Your task to perform on an android device: turn off location history Image 0: 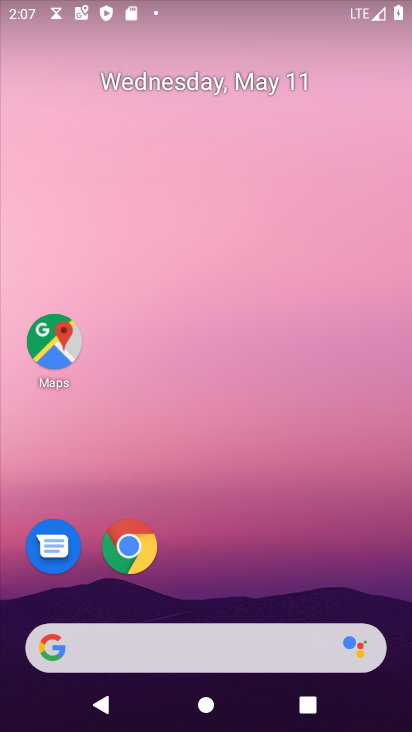
Step 0: drag from (323, 629) to (341, 15)
Your task to perform on an android device: turn off location history Image 1: 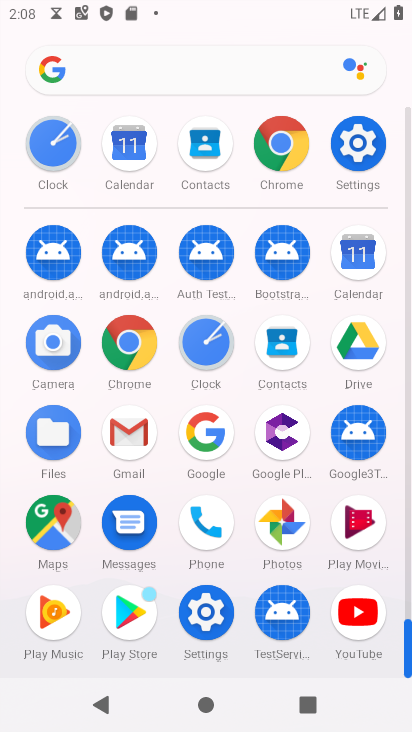
Step 1: click (348, 143)
Your task to perform on an android device: turn off location history Image 2: 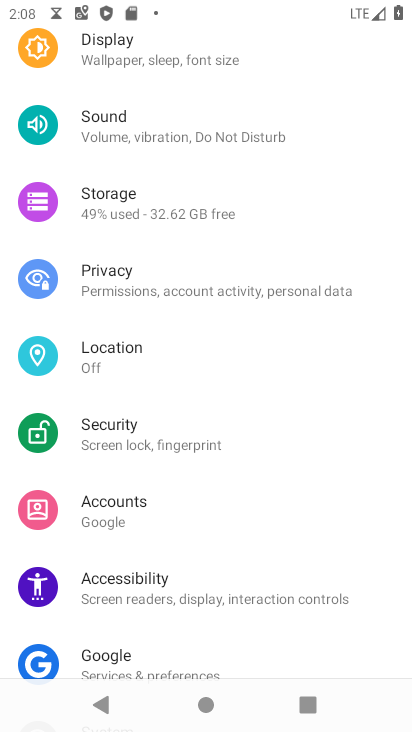
Step 2: click (289, 349)
Your task to perform on an android device: turn off location history Image 3: 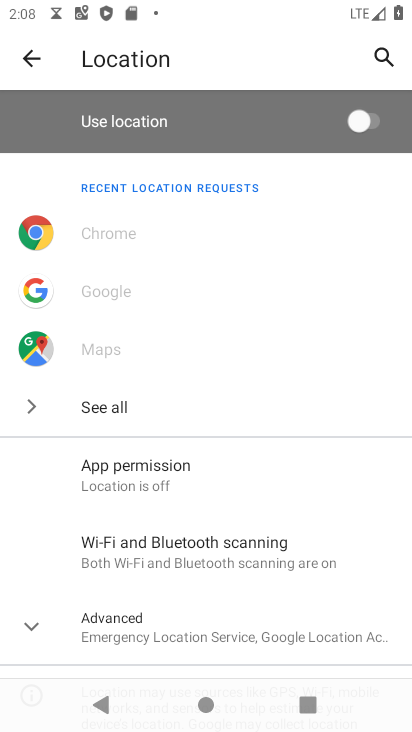
Step 3: drag from (339, 629) to (340, 259)
Your task to perform on an android device: turn off location history Image 4: 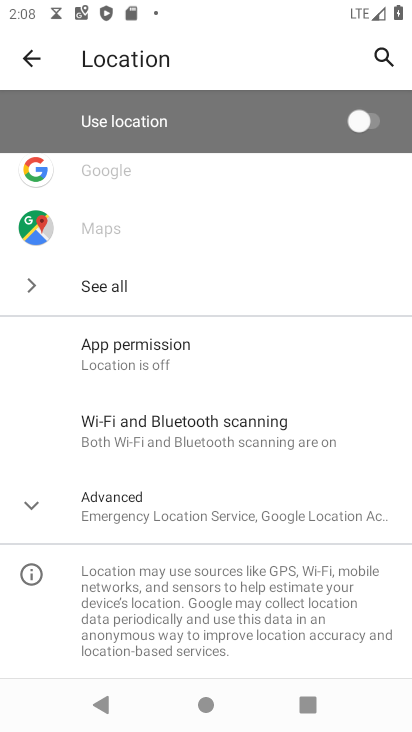
Step 4: click (271, 517)
Your task to perform on an android device: turn off location history Image 5: 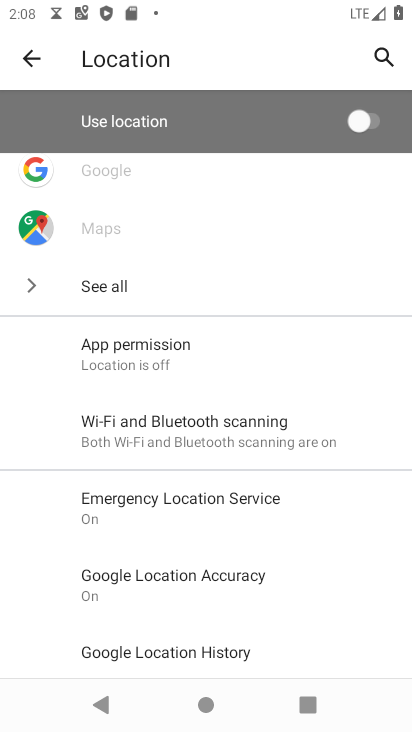
Step 5: drag from (286, 634) to (311, 308)
Your task to perform on an android device: turn off location history Image 6: 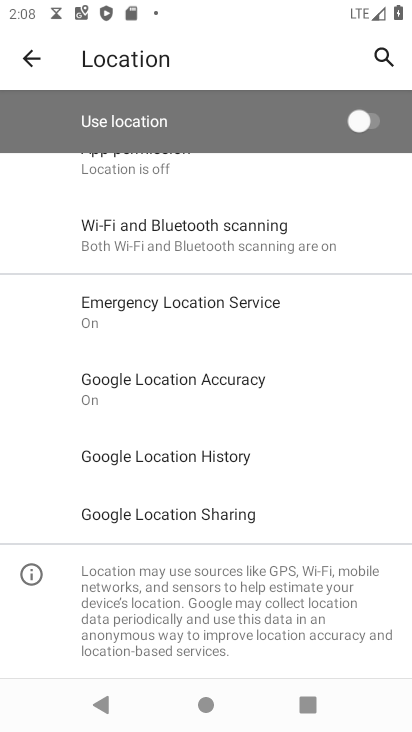
Step 6: click (214, 452)
Your task to perform on an android device: turn off location history Image 7: 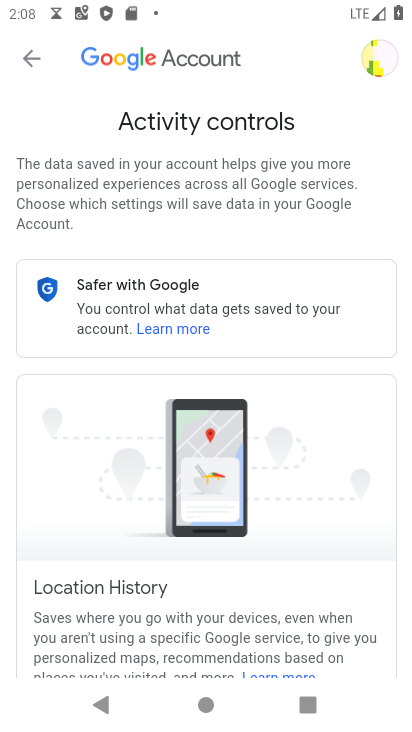
Step 7: drag from (246, 663) to (365, 14)
Your task to perform on an android device: turn off location history Image 8: 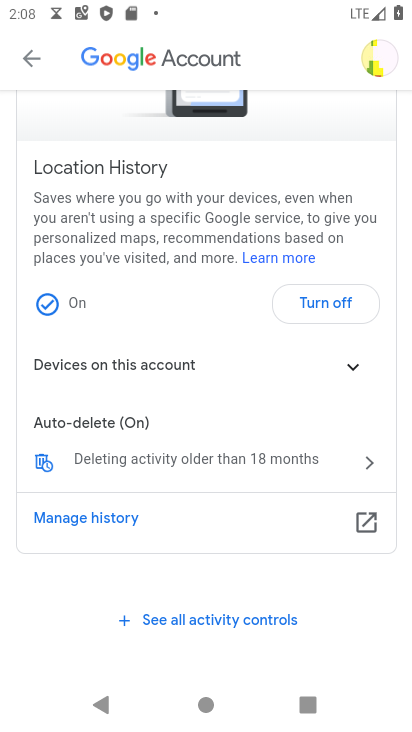
Step 8: click (326, 295)
Your task to perform on an android device: turn off location history Image 9: 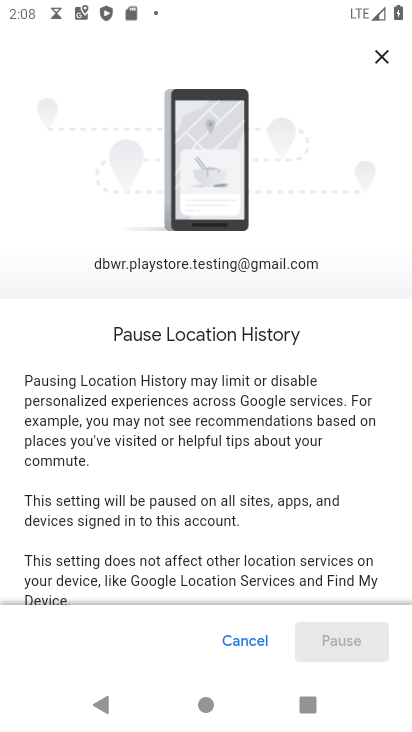
Step 9: drag from (174, 570) to (213, 13)
Your task to perform on an android device: turn off location history Image 10: 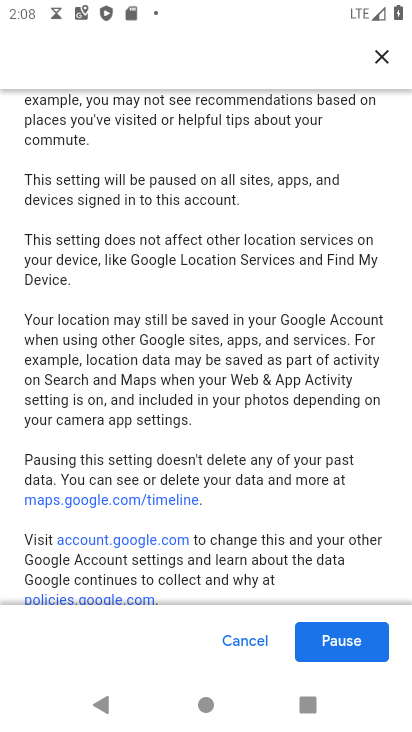
Step 10: click (317, 643)
Your task to perform on an android device: turn off location history Image 11: 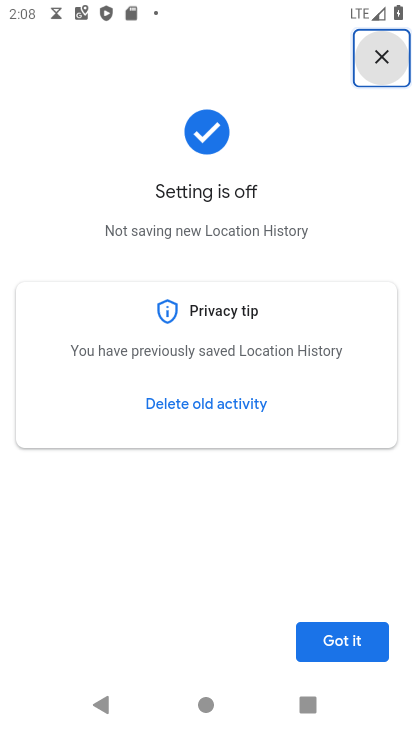
Step 11: task complete